Your task to perform on an android device: See recent photos Image 0: 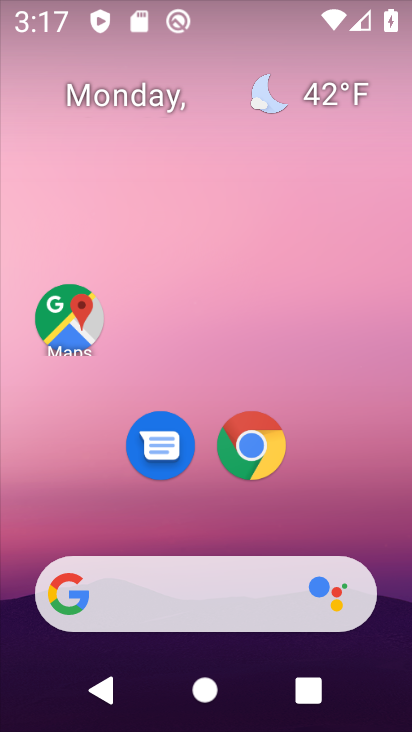
Step 0: drag from (10, 512) to (205, 14)
Your task to perform on an android device: See recent photos Image 1: 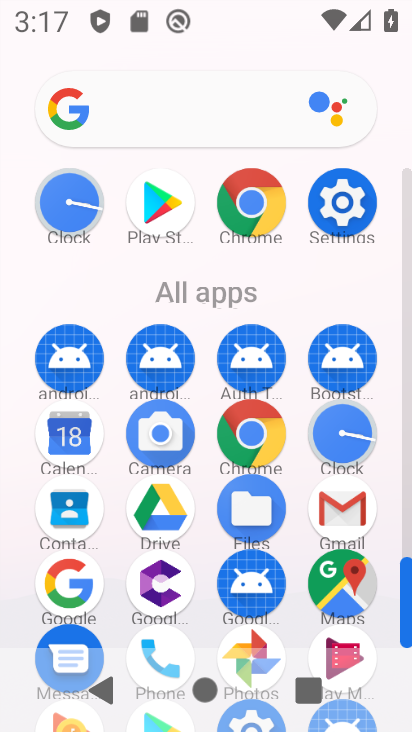
Step 1: click (258, 639)
Your task to perform on an android device: See recent photos Image 2: 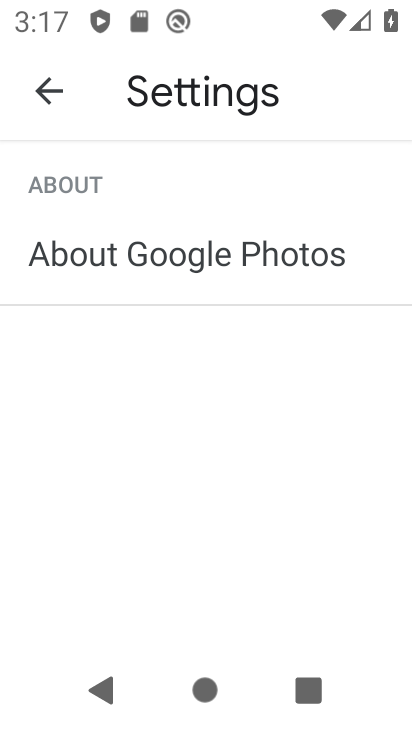
Step 2: click (57, 104)
Your task to perform on an android device: See recent photos Image 3: 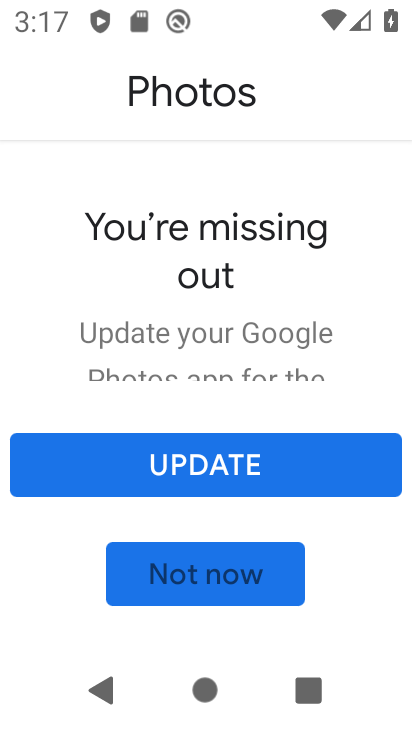
Step 3: click (329, 473)
Your task to perform on an android device: See recent photos Image 4: 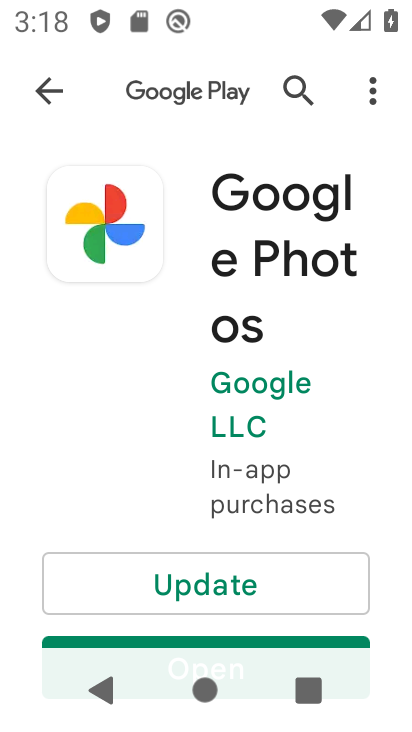
Step 4: click (211, 573)
Your task to perform on an android device: See recent photos Image 5: 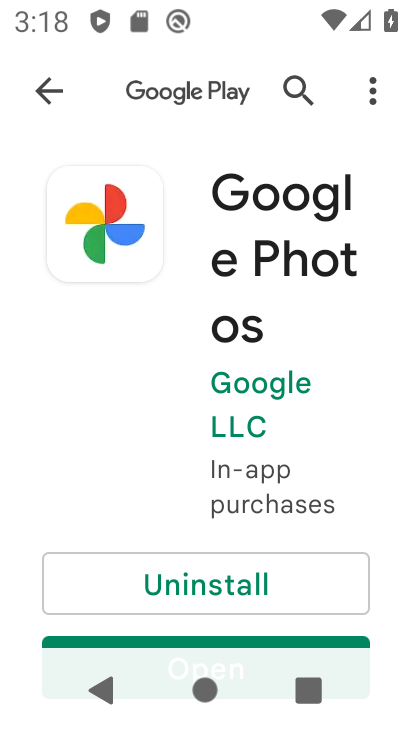
Step 5: drag from (140, 466) to (168, 114)
Your task to perform on an android device: See recent photos Image 6: 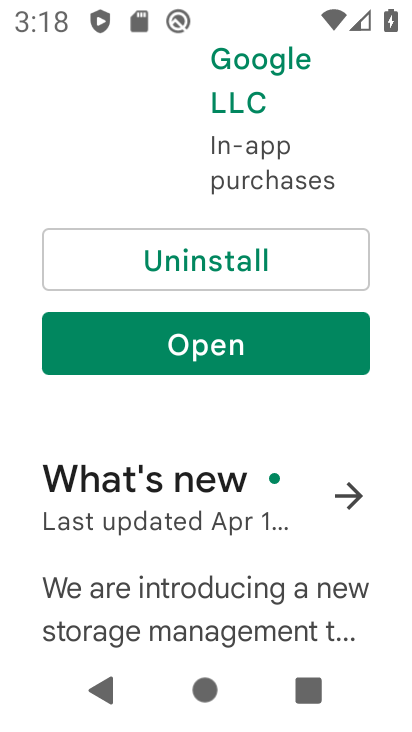
Step 6: click (205, 358)
Your task to perform on an android device: See recent photos Image 7: 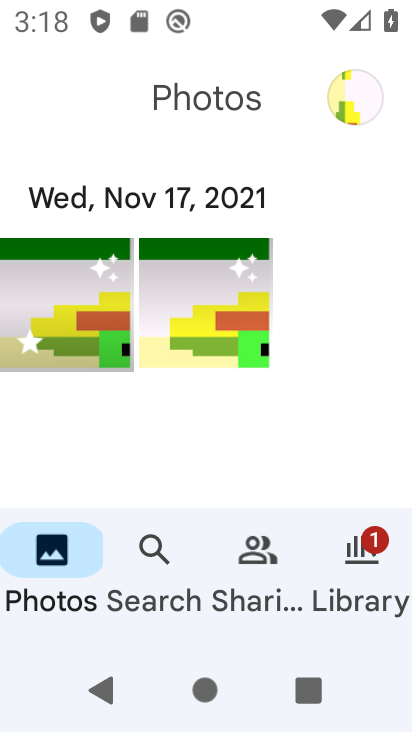
Step 7: click (55, 310)
Your task to perform on an android device: See recent photos Image 8: 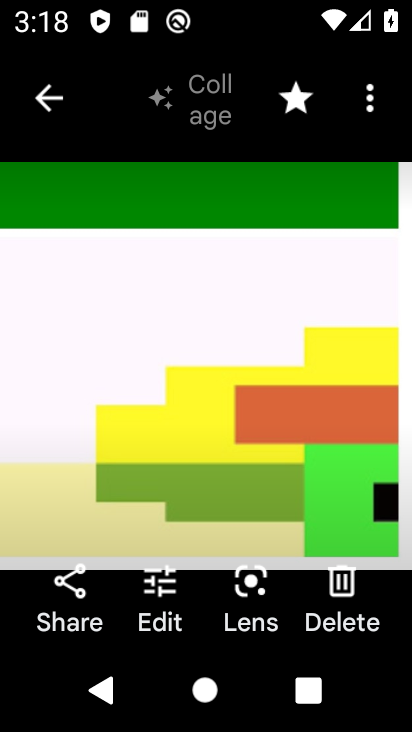
Step 8: task complete